Your task to perform on an android device: Open Reddit.com Image 0: 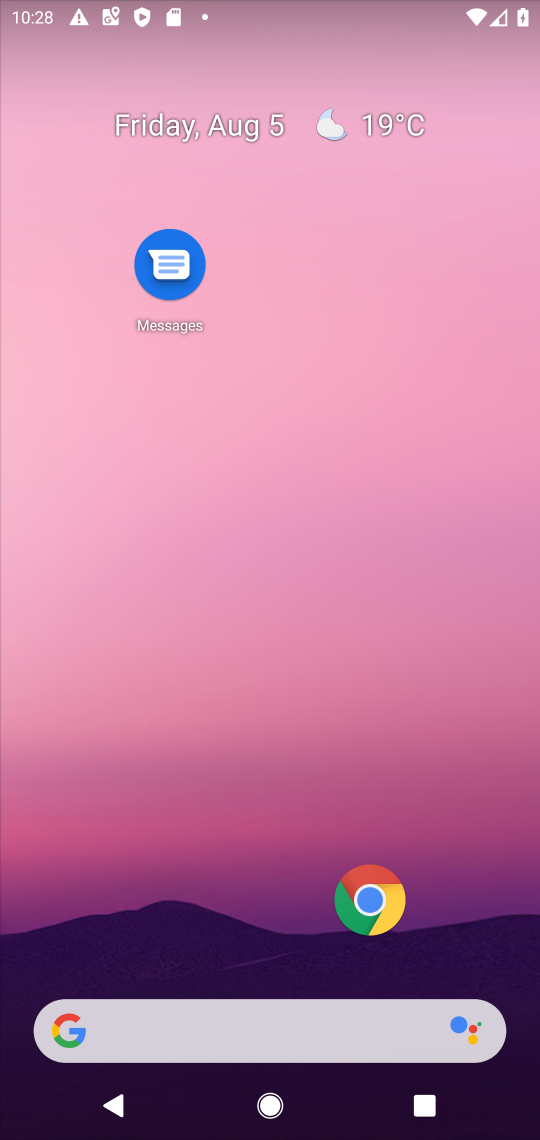
Step 0: click (255, 947)
Your task to perform on an android device: Open Reddit.com Image 1: 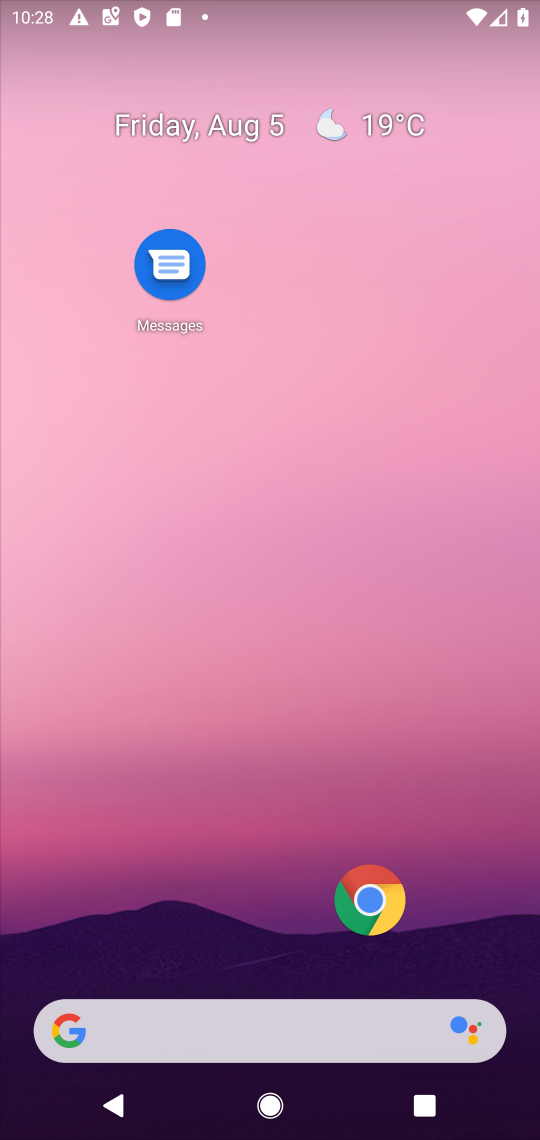
Step 1: click (383, 914)
Your task to perform on an android device: Open Reddit.com Image 2: 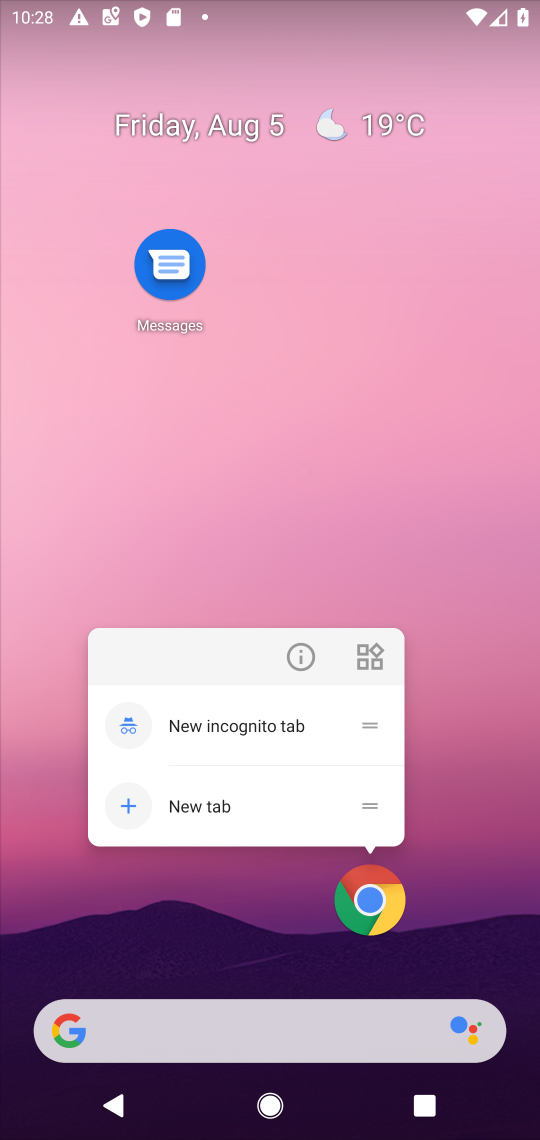
Step 2: click (381, 897)
Your task to perform on an android device: Open Reddit.com Image 3: 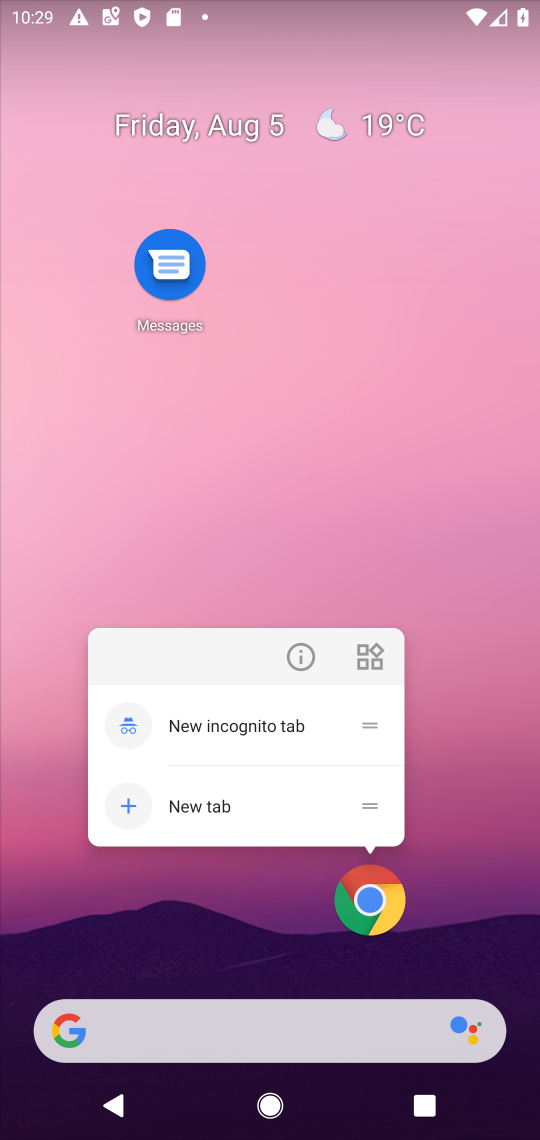
Step 3: click (381, 893)
Your task to perform on an android device: Open Reddit.com Image 4: 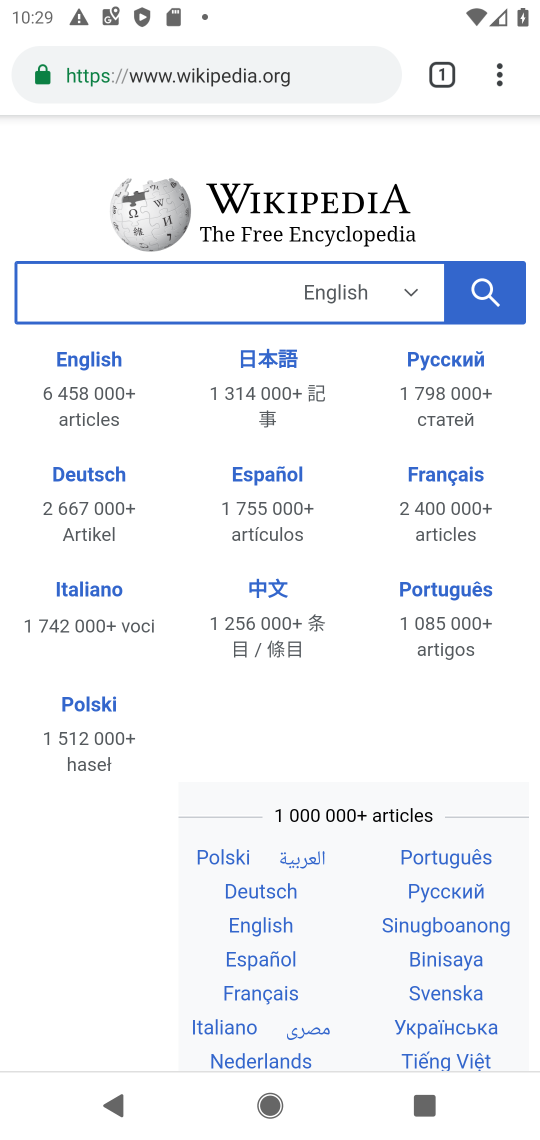
Step 4: click (358, 65)
Your task to perform on an android device: Open Reddit.com Image 5: 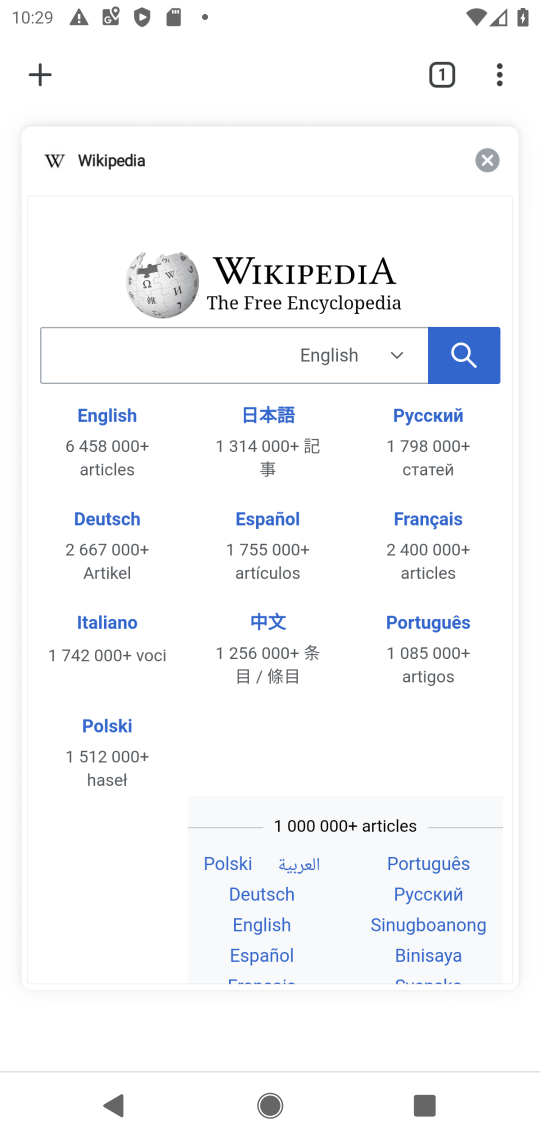
Step 5: click (41, 90)
Your task to perform on an android device: Open Reddit.com Image 6: 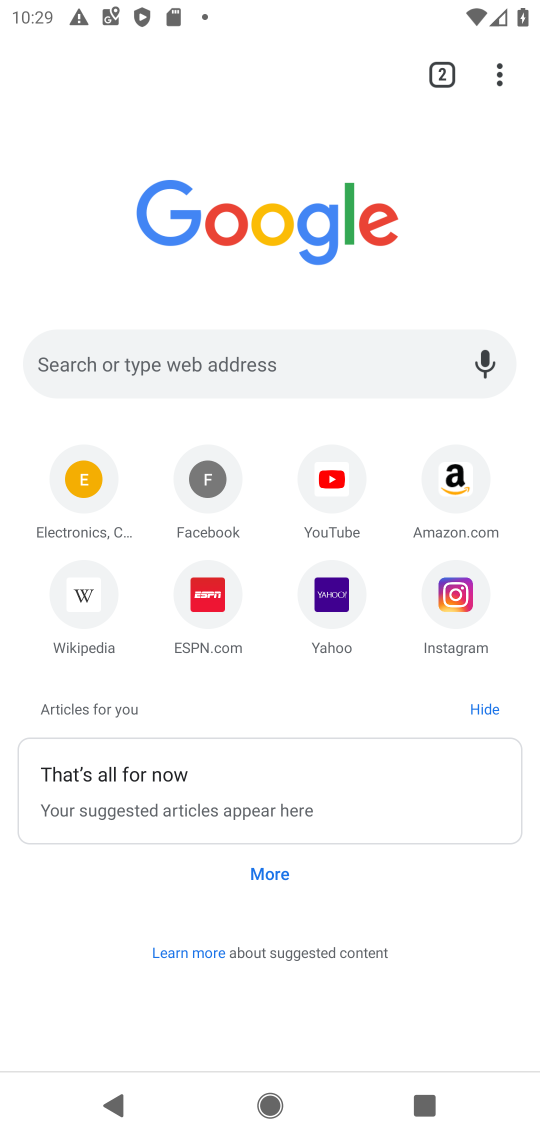
Step 6: click (201, 382)
Your task to perform on an android device: Open Reddit.com Image 7: 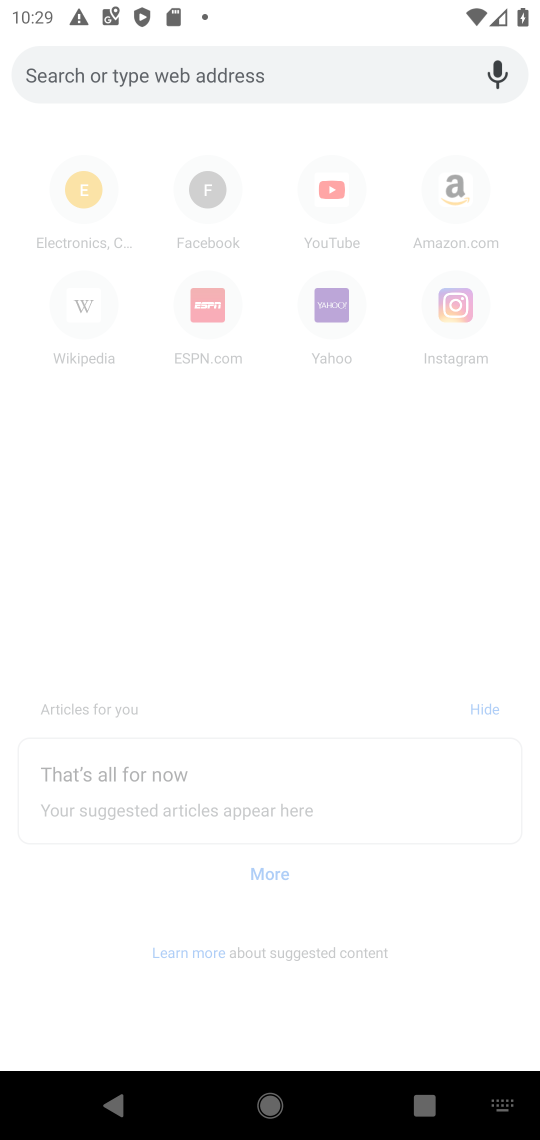
Step 7: type "Reddit.com"
Your task to perform on an android device: Open Reddit.com Image 8: 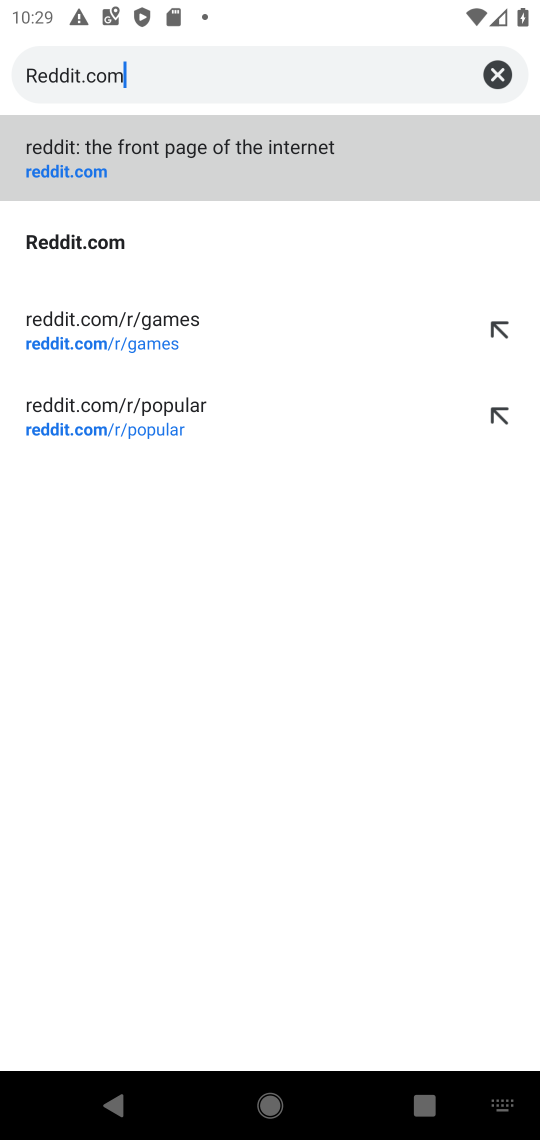
Step 8: click (310, 159)
Your task to perform on an android device: Open Reddit.com Image 9: 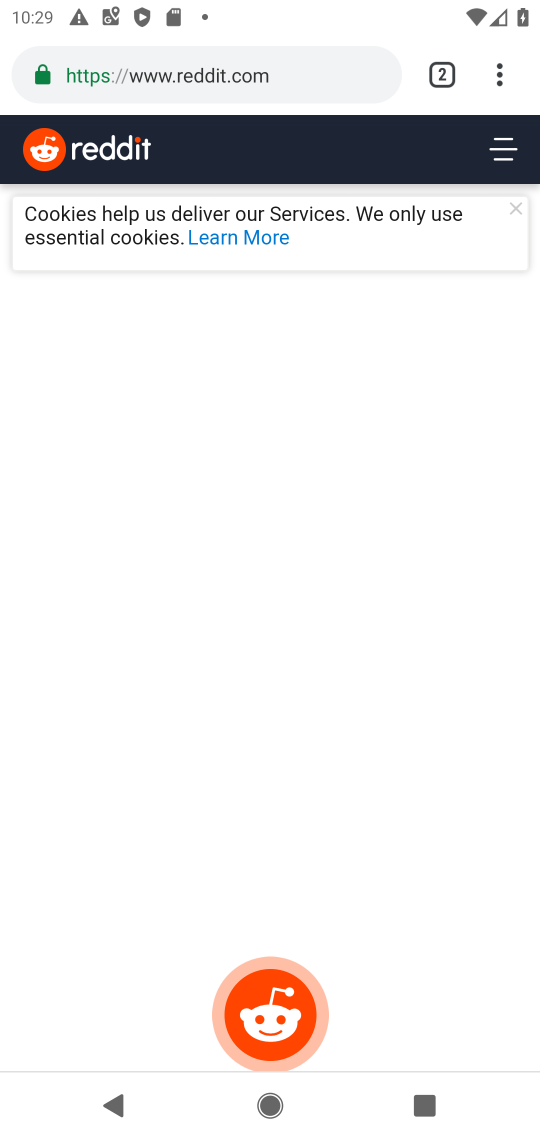
Step 9: task complete